Your task to perform on an android device: Open battery settings Image 0: 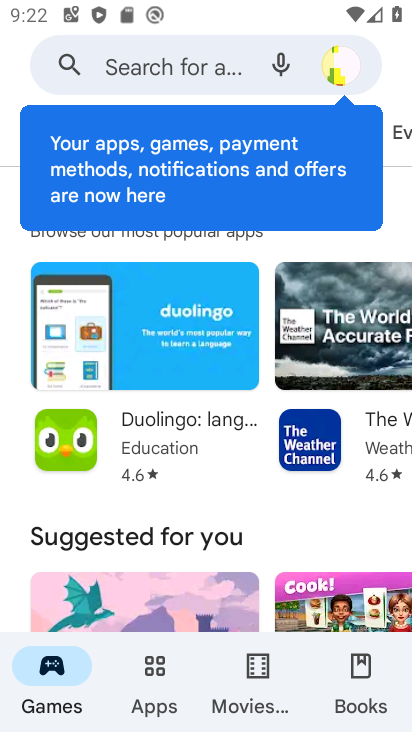
Step 0: press home button
Your task to perform on an android device: Open battery settings Image 1: 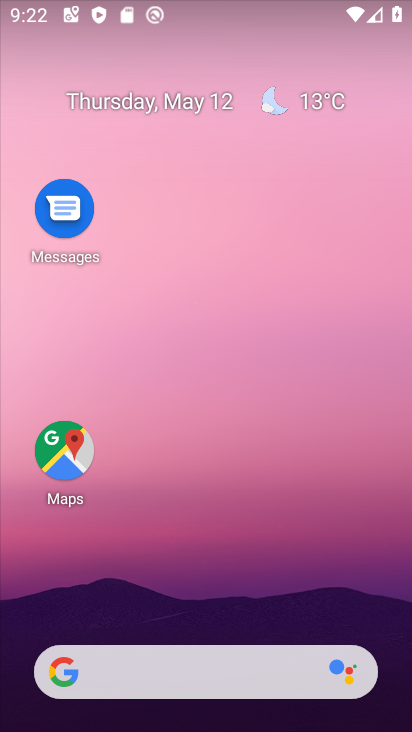
Step 1: drag from (190, 628) to (181, 35)
Your task to perform on an android device: Open battery settings Image 2: 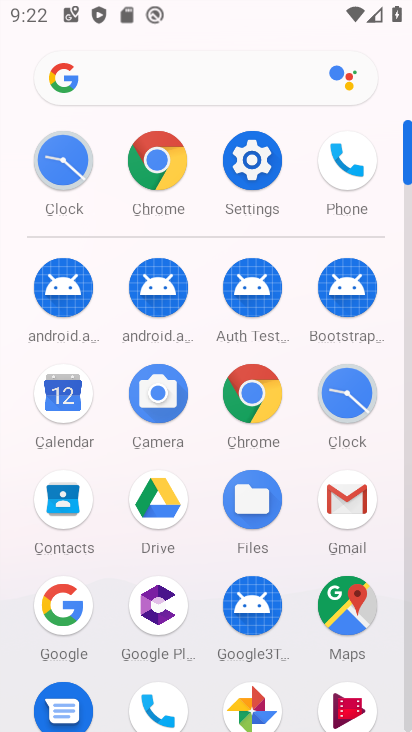
Step 2: click (252, 181)
Your task to perform on an android device: Open battery settings Image 3: 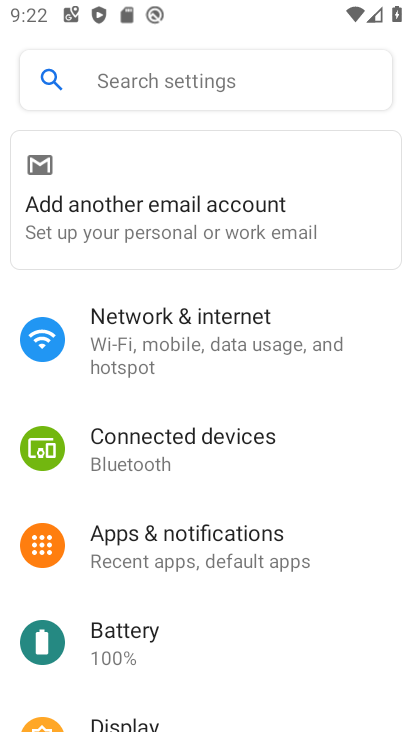
Step 3: click (117, 634)
Your task to perform on an android device: Open battery settings Image 4: 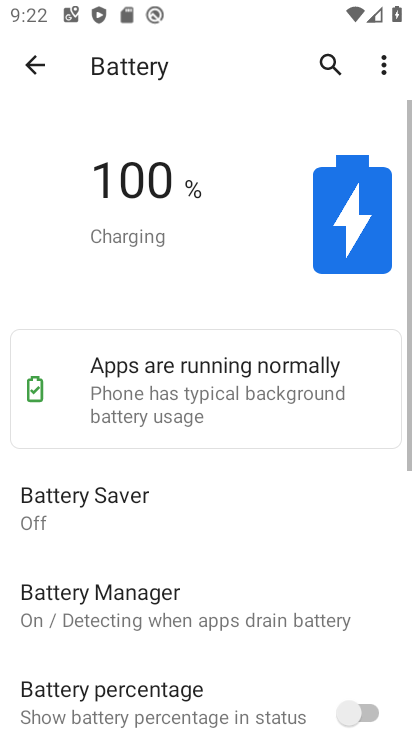
Step 4: task complete